Your task to perform on an android device: Open CNN.com Image 0: 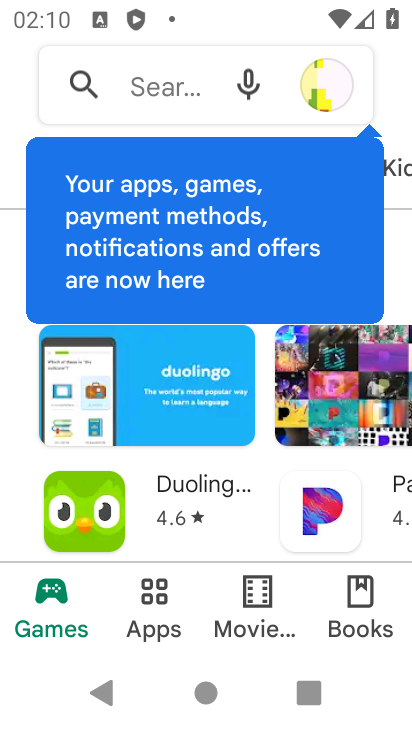
Step 0: press home button
Your task to perform on an android device: Open CNN.com Image 1: 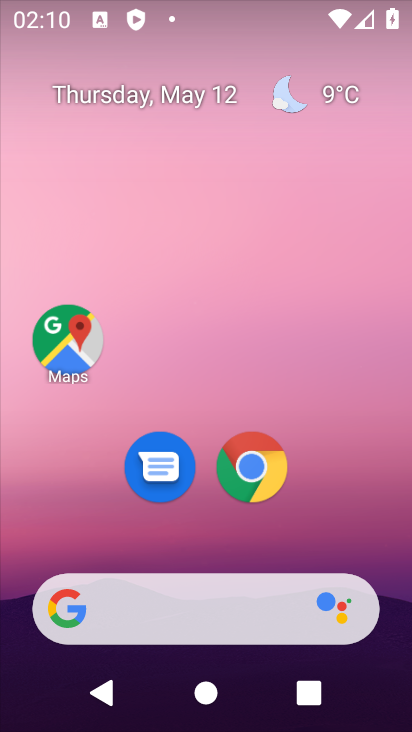
Step 1: drag from (244, 520) to (287, 222)
Your task to perform on an android device: Open CNN.com Image 2: 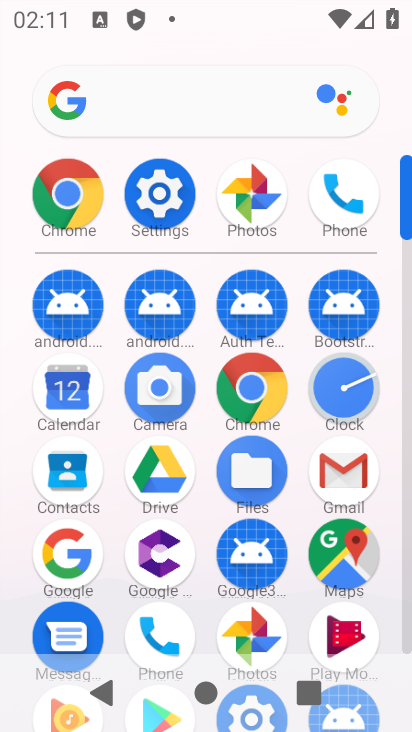
Step 2: click (246, 363)
Your task to perform on an android device: Open CNN.com Image 3: 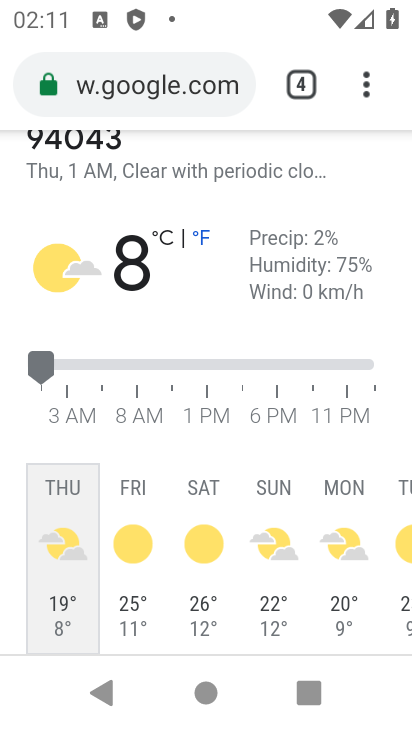
Step 3: click (356, 77)
Your task to perform on an android device: Open CNN.com Image 4: 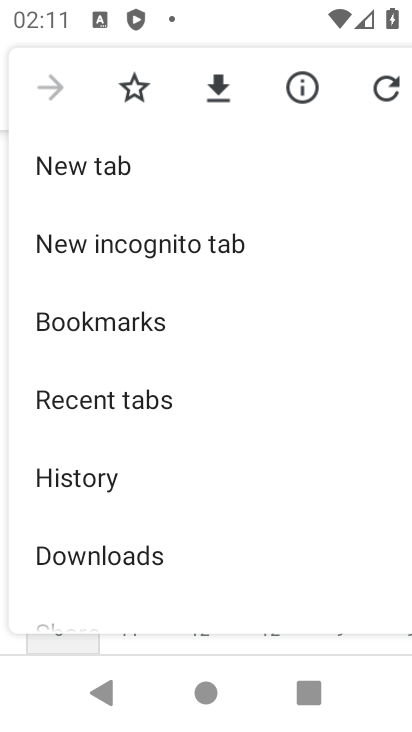
Step 4: click (80, 164)
Your task to perform on an android device: Open CNN.com Image 5: 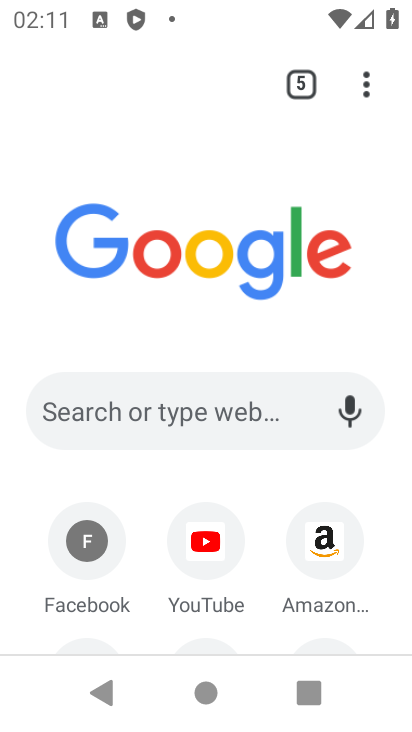
Step 5: click (190, 438)
Your task to perform on an android device: Open CNN.com Image 6: 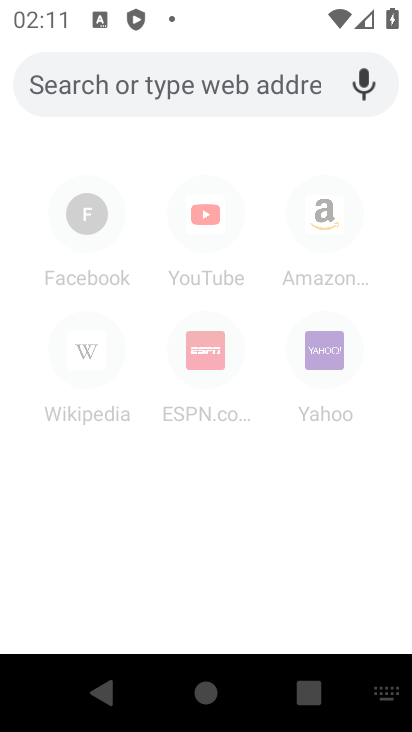
Step 6: type "CNN.com"
Your task to perform on an android device: Open CNN.com Image 7: 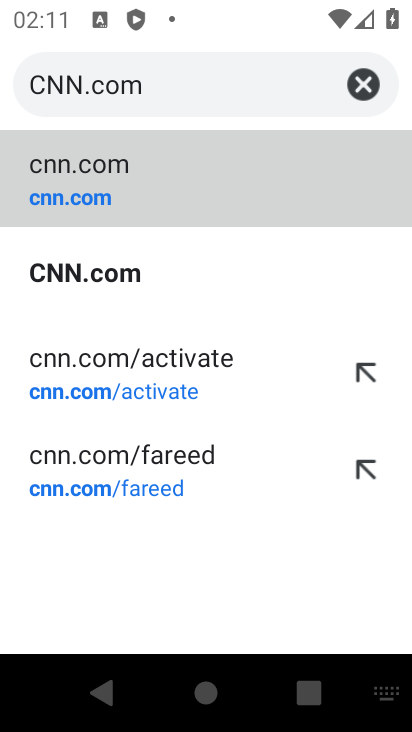
Step 7: click (156, 260)
Your task to perform on an android device: Open CNN.com Image 8: 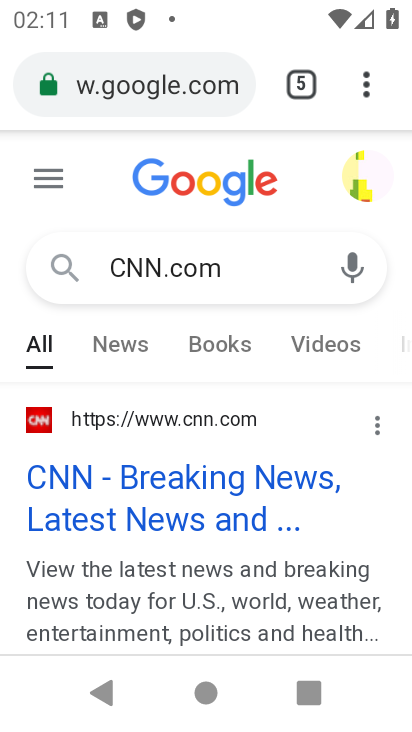
Step 8: task complete